Your task to perform on an android device: Go to Wikipedia Image 0: 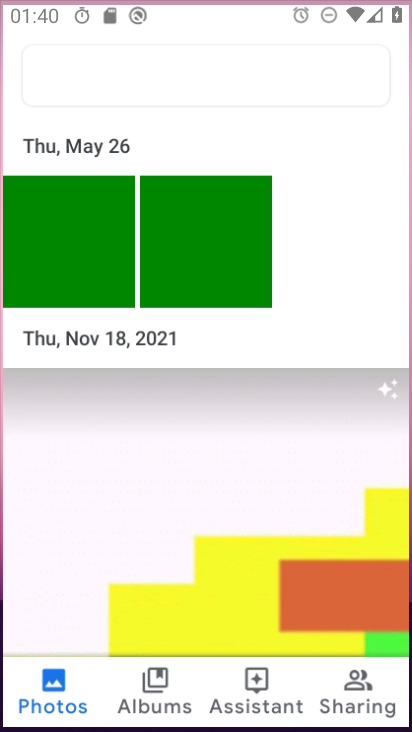
Step 0: drag from (201, 2) to (232, 464)
Your task to perform on an android device: Go to Wikipedia Image 1: 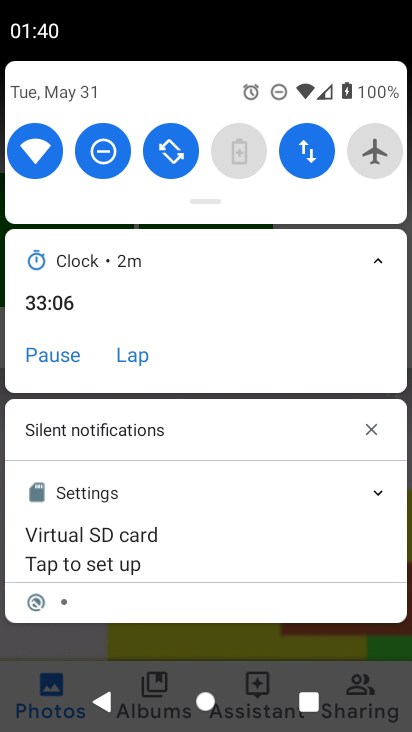
Step 1: press home button
Your task to perform on an android device: Go to Wikipedia Image 2: 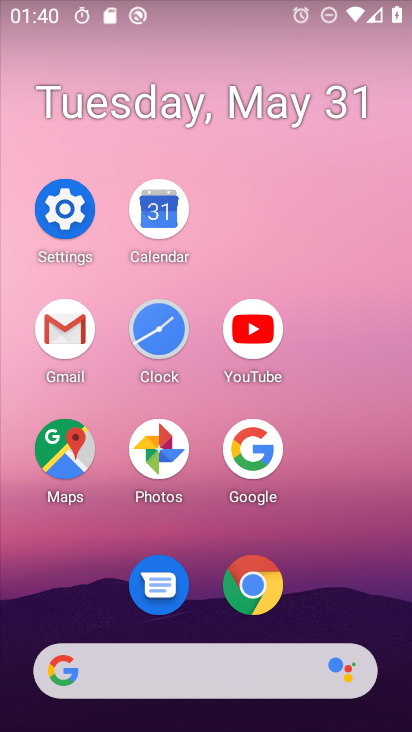
Step 2: click (242, 597)
Your task to perform on an android device: Go to Wikipedia Image 3: 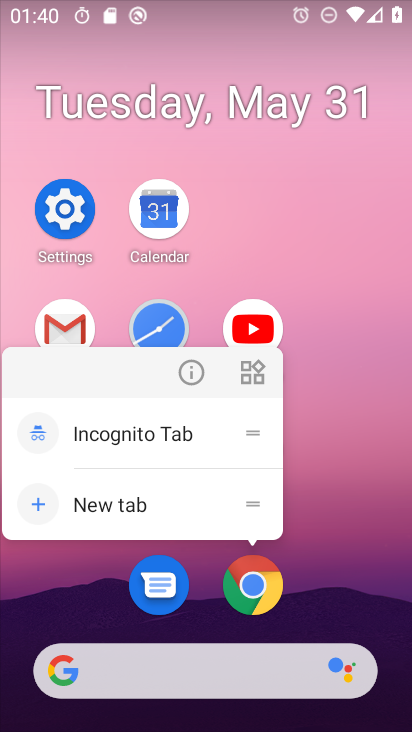
Step 3: click (266, 577)
Your task to perform on an android device: Go to Wikipedia Image 4: 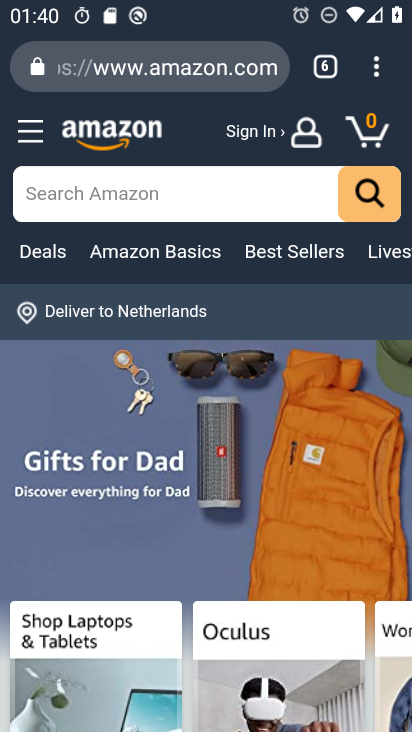
Step 4: click (325, 63)
Your task to perform on an android device: Go to Wikipedia Image 5: 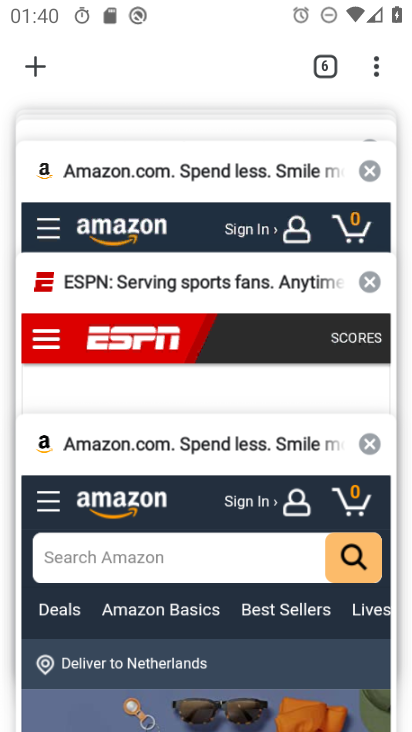
Step 5: click (44, 79)
Your task to perform on an android device: Go to Wikipedia Image 6: 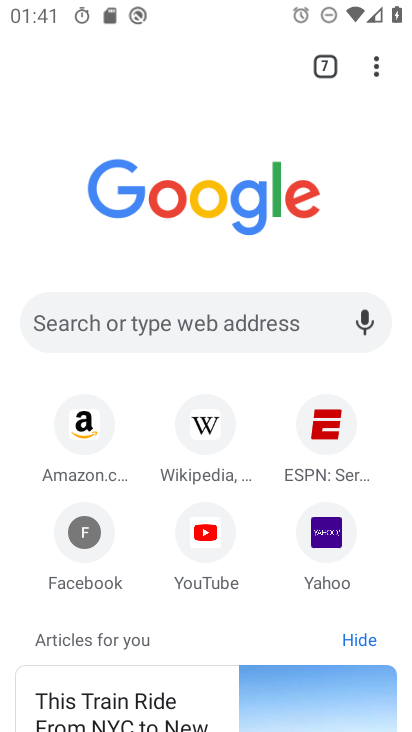
Step 6: click (213, 439)
Your task to perform on an android device: Go to Wikipedia Image 7: 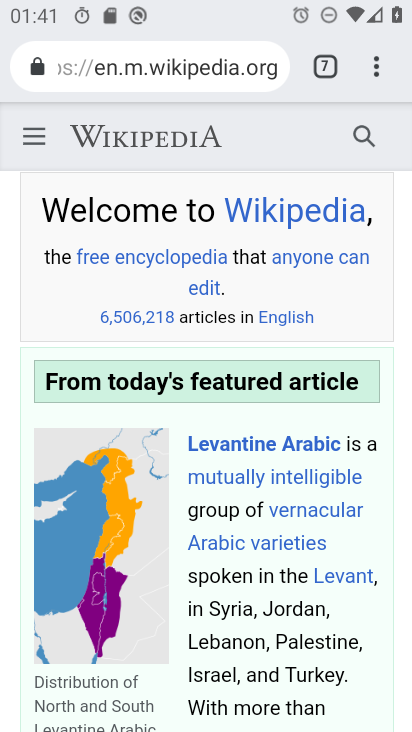
Step 7: task complete